Your task to perform on an android device: toggle sleep mode Image 0: 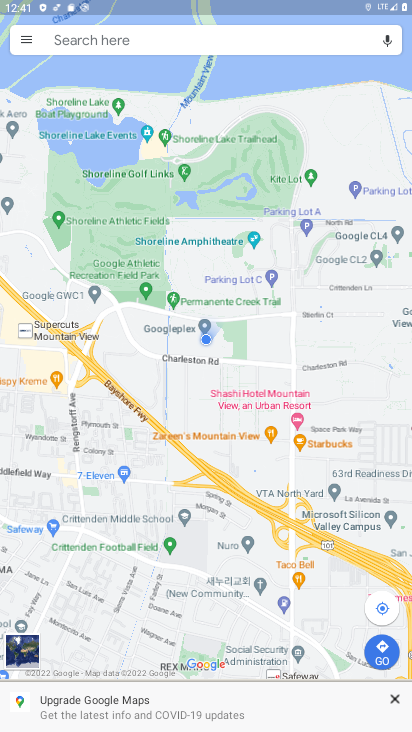
Step 0: press home button
Your task to perform on an android device: toggle sleep mode Image 1: 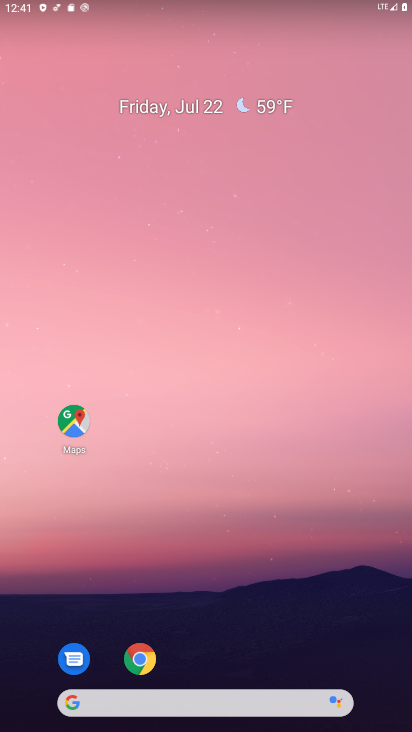
Step 1: drag from (220, 619) to (223, 208)
Your task to perform on an android device: toggle sleep mode Image 2: 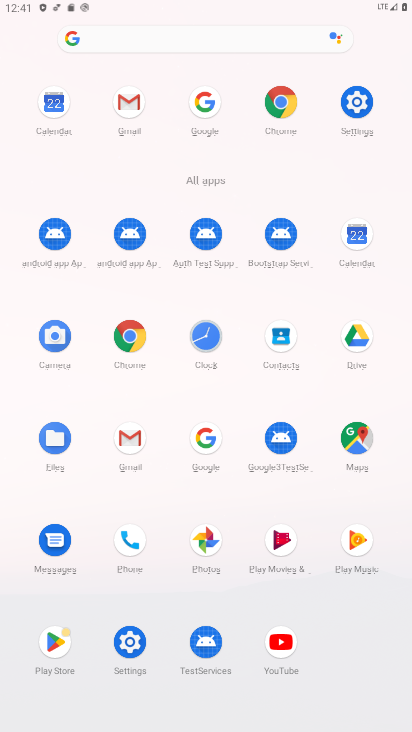
Step 2: click (354, 113)
Your task to perform on an android device: toggle sleep mode Image 3: 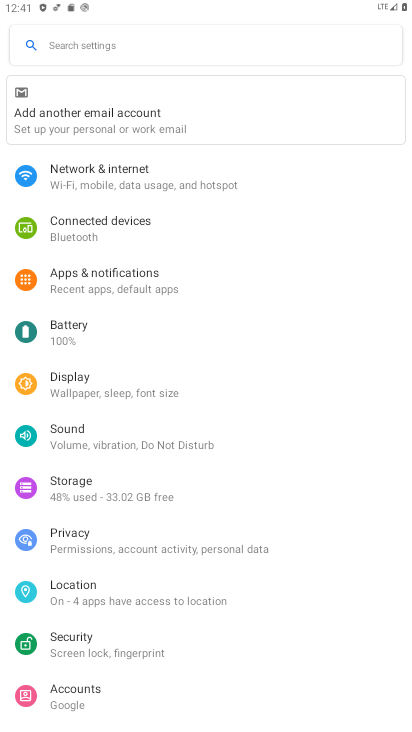
Step 3: click (107, 374)
Your task to perform on an android device: toggle sleep mode Image 4: 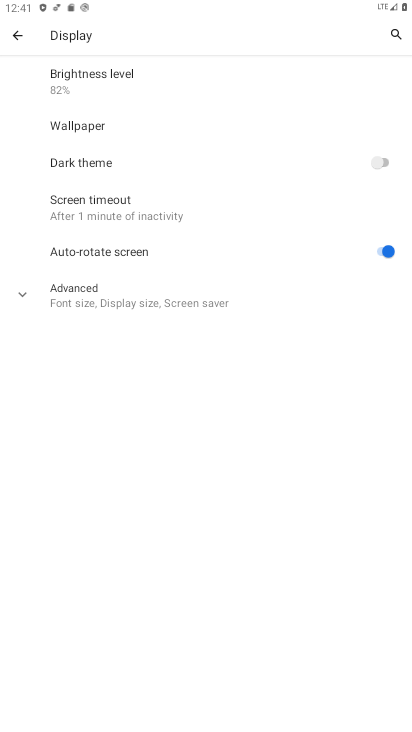
Step 4: click (125, 221)
Your task to perform on an android device: toggle sleep mode Image 5: 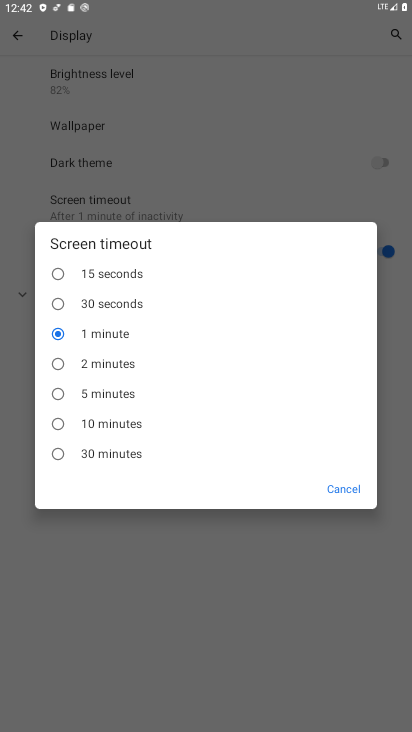
Step 5: click (119, 387)
Your task to perform on an android device: toggle sleep mode Image 6: 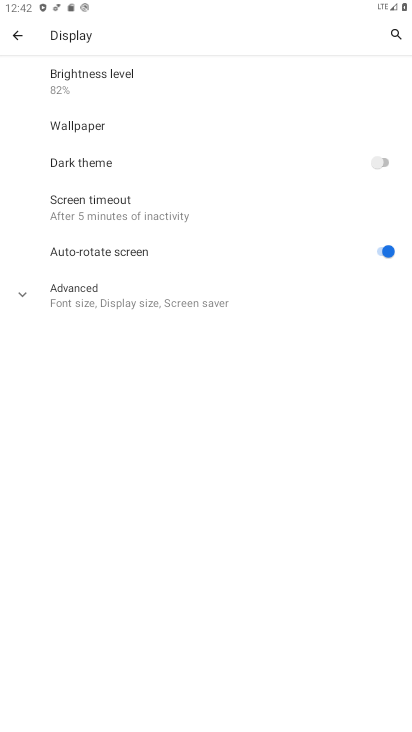
Step 6: click (114, 213)
Your task to perform on an android device: toggle sleep mode Image 7: 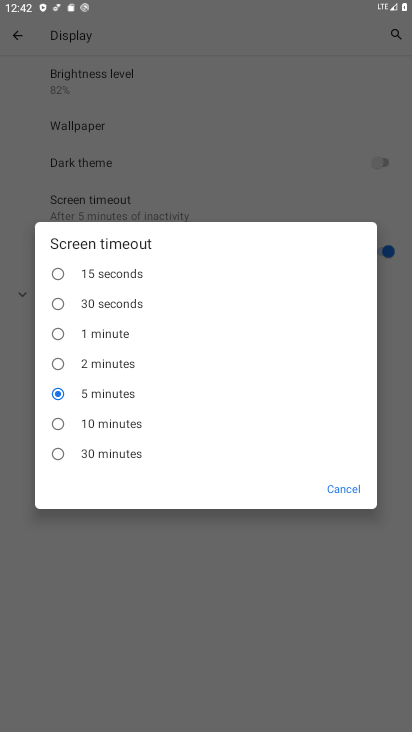
Step 7: click (111, 314)
Your task to perform on an android device: toggle sleep mode Image 8: 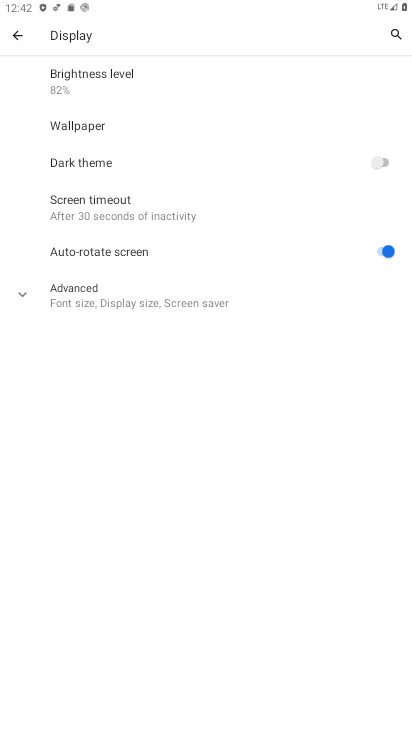
Step 8: task complete